Your task to perform on an android device: check battery use Image 0: 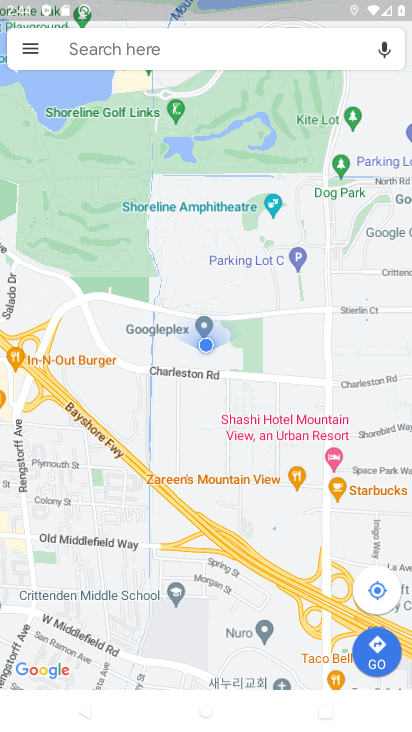
Step 0: press home button
Your task to perform on an android device: check battery use Image 1: 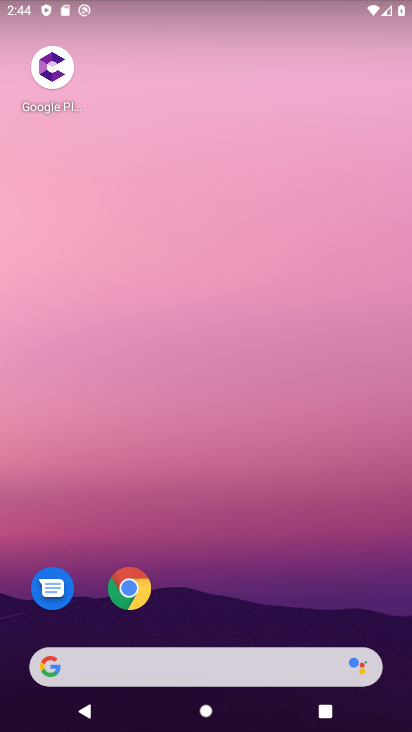
Step 1: drag from (148, 615) to (183, 96)
Your task to perform on an android device: check battery use Image 2: 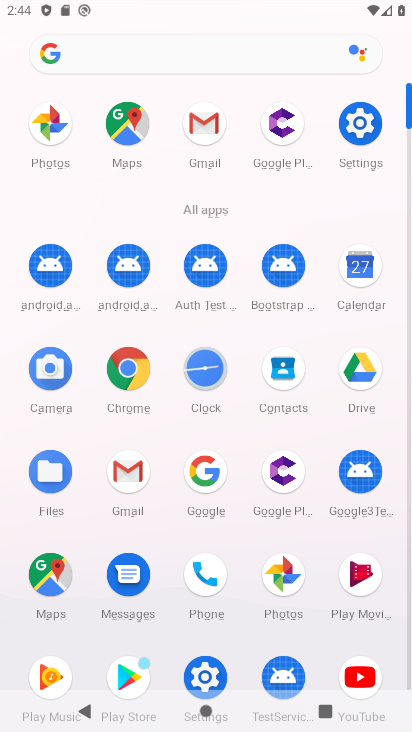
Step 2: click (197, 675)
Your task to perform on an android device: check battery use Image 3: 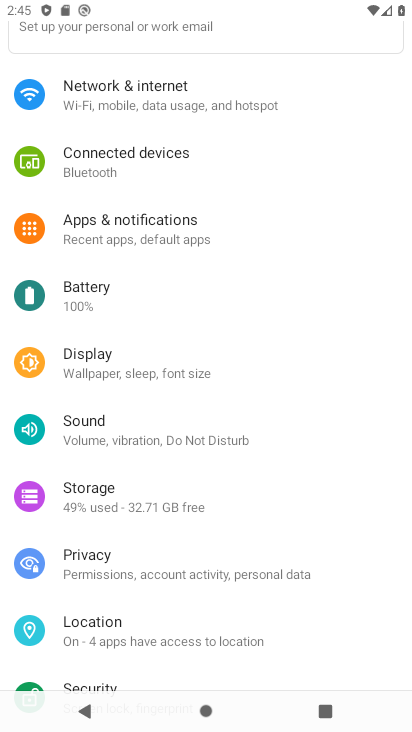
Step 3: drag from (160, 547) to (183, 233)
Your task to perform on an android device: check battery use Image 4: 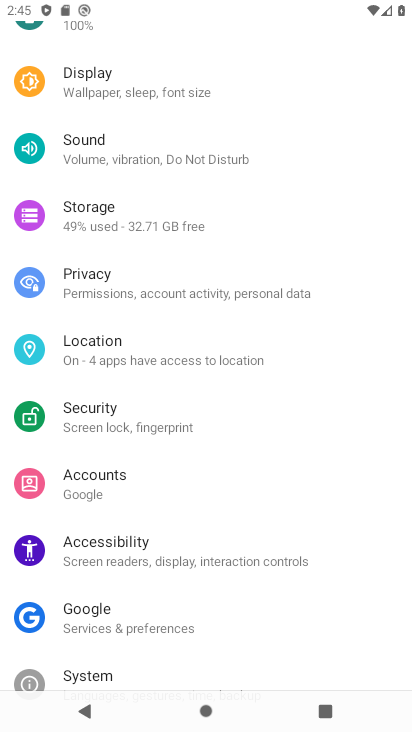
Step 4: drag from (180, 172) to (180, 528)
Your task to perform on an android device: check battery use Image 5: 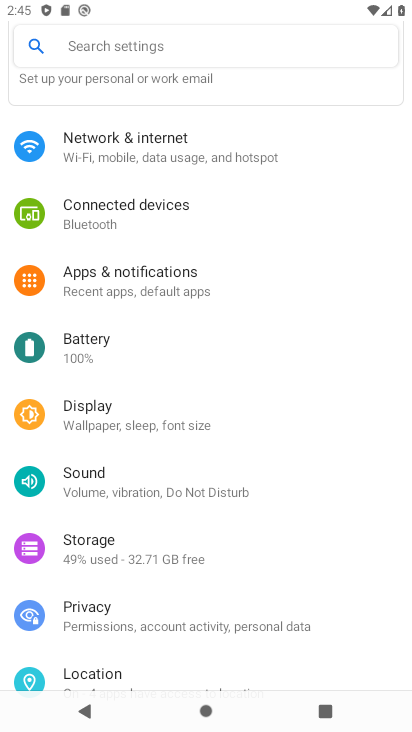
Step 5: click (122, 360)
Your task to perform on an android device: check battery use Image 6: 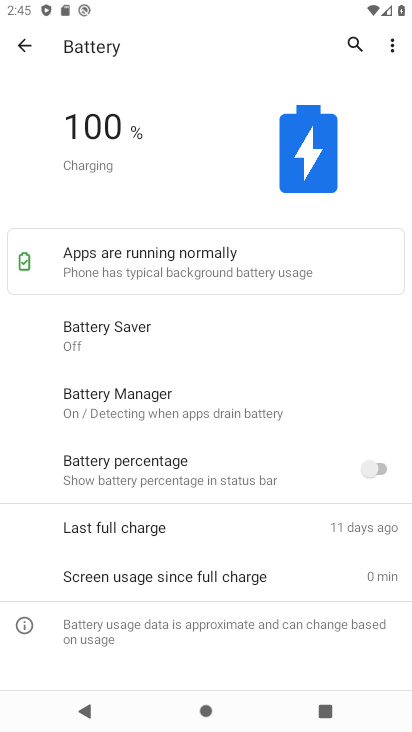
Step 6: drag from (144, 555) to (178, 633)
Your task to perform on an android device: check battery use Image 7: 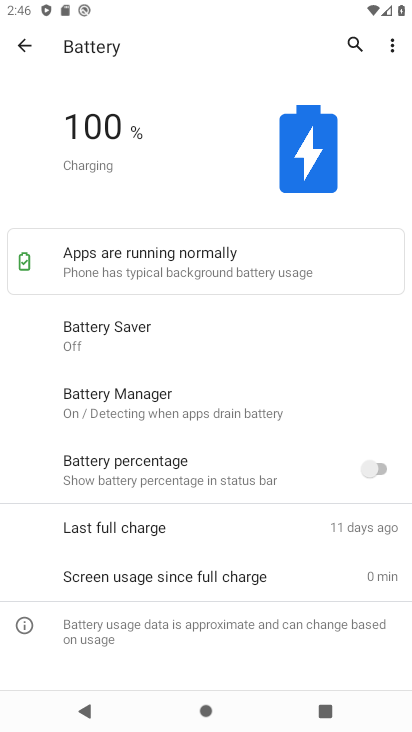
Step 7: click (394, 51)
Your task to perform on an android device: check battery use Image 8: 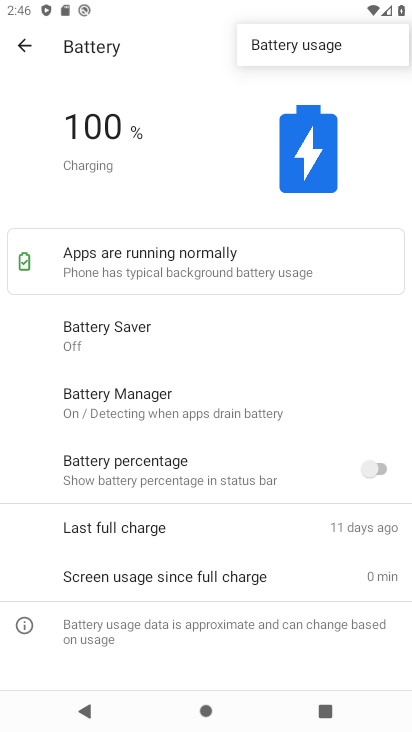
Step 8: click (348, 49)
Your task to perform on an android device: check battery use Image 9: 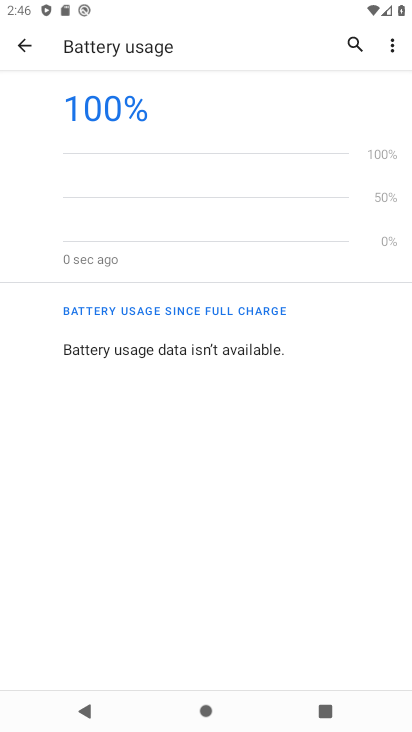
Step 9: task complete